Your task to perform on an android device: remove spam from my inbox in the gmail app Image 0: 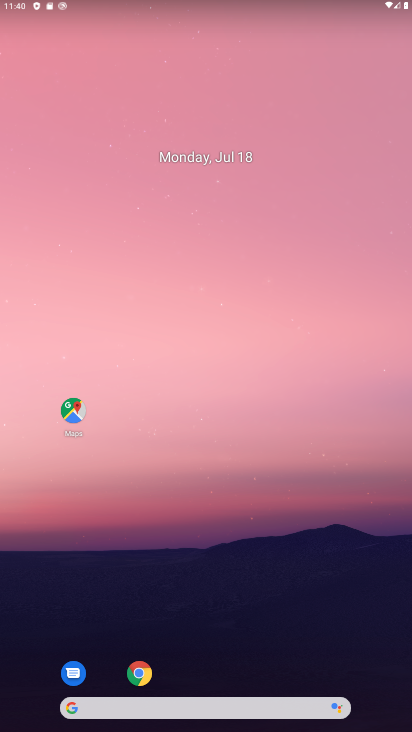
Step 0: drag from (249, 642) to (257, 28)
Your task to perform on an android device: remove spam from my inbox in the gmail app Image 1: 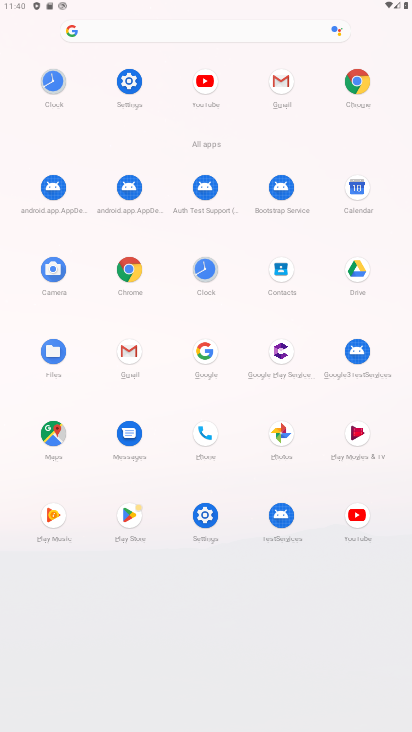
Step 1: click (284, 81)
Your task to perform on an android device: remove spam from my inbox in the gmail app Image 2: 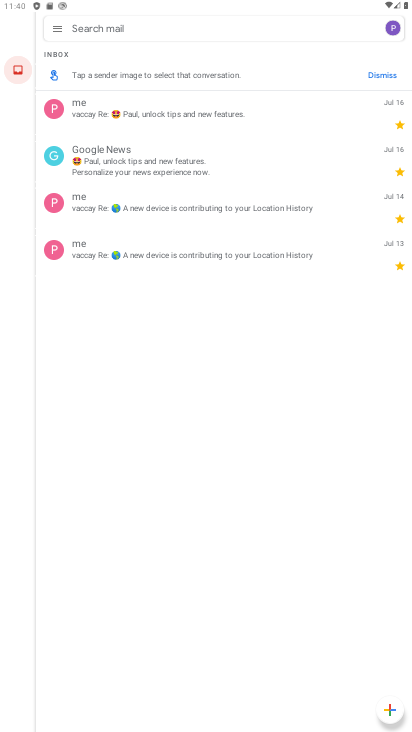
Step 2: click (54, 32)
Your task to perform on an android device: remove spam from my inbox in the gmail app Image 3: 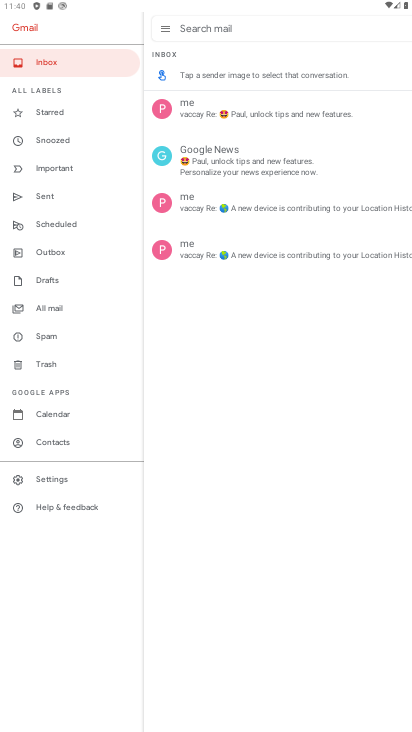
Step 3: click (57, 334)
Your task to perform on an android device: remove spam from my inbox in the gmail app Image 4: 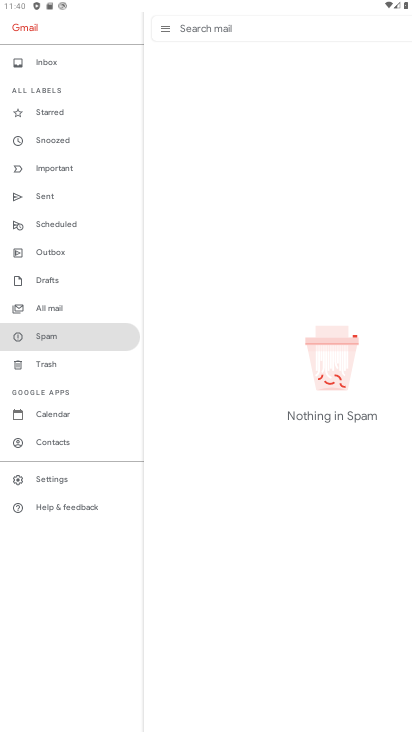
Step 4: task complete